Your task to perform on an android device: find photos in the google photos app Image 0: 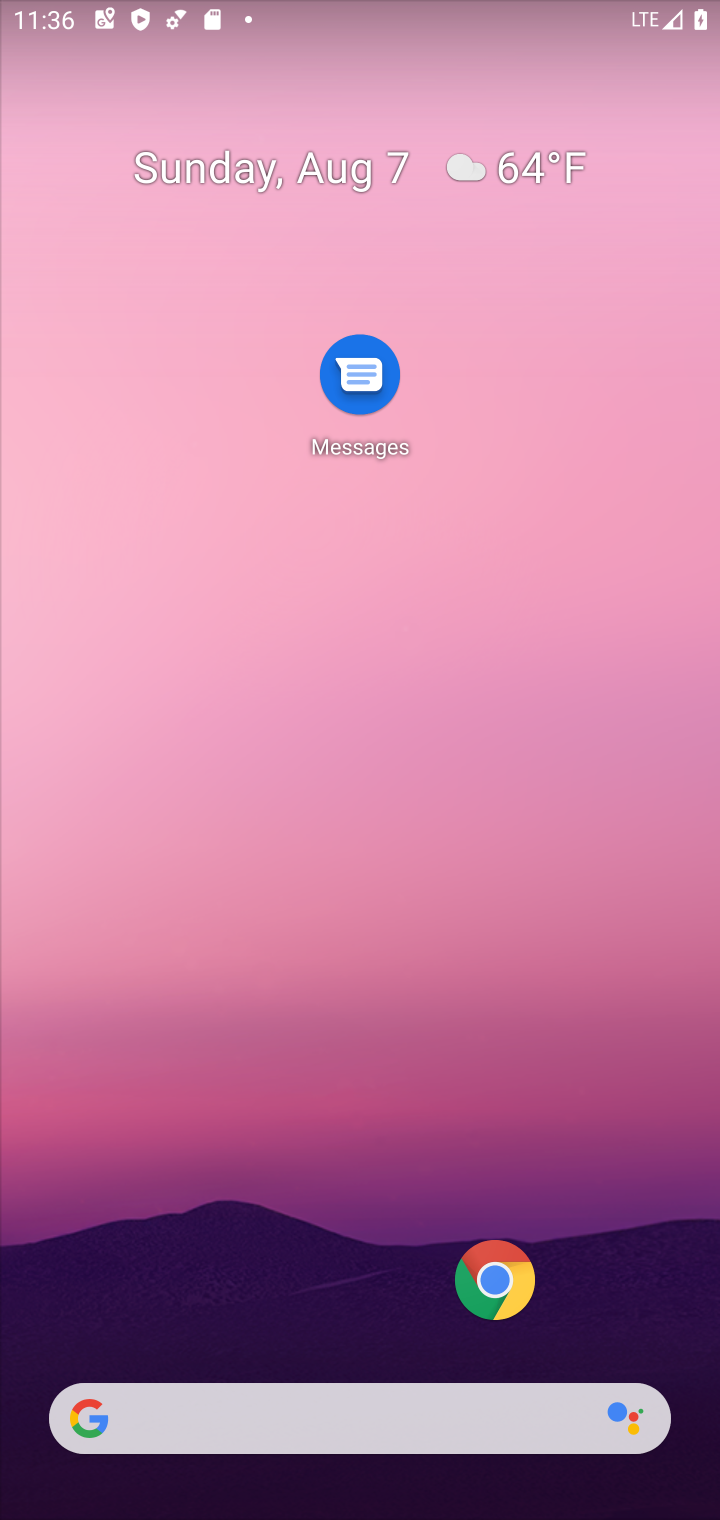
Step 0: drag from (323, 861) to (393, 266)
Your task to perform on an android device: find photos in the google photos app Image 1: 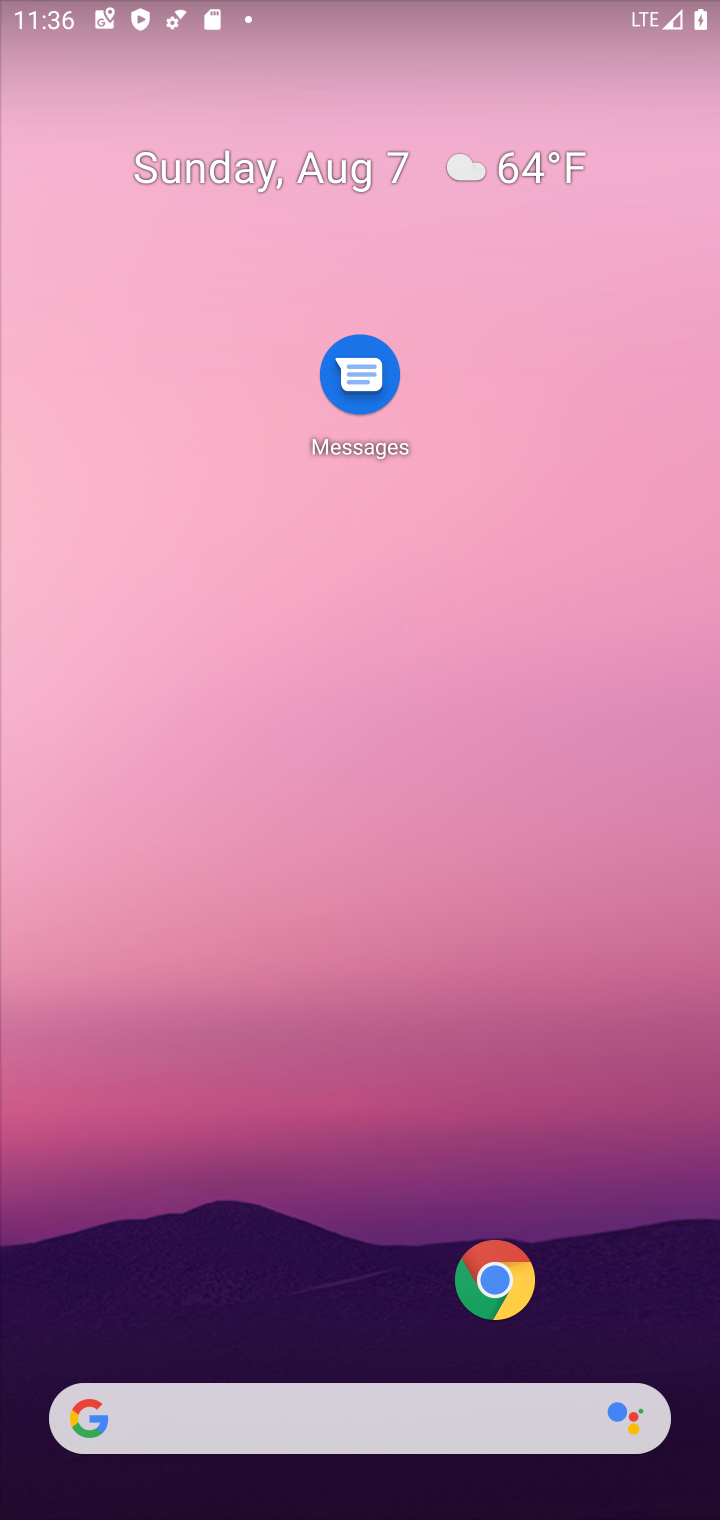
Step 1: drag from (249, 1377) to (331, 301)
Your task to perform on an android device: find photos in the google photos app Image 2: 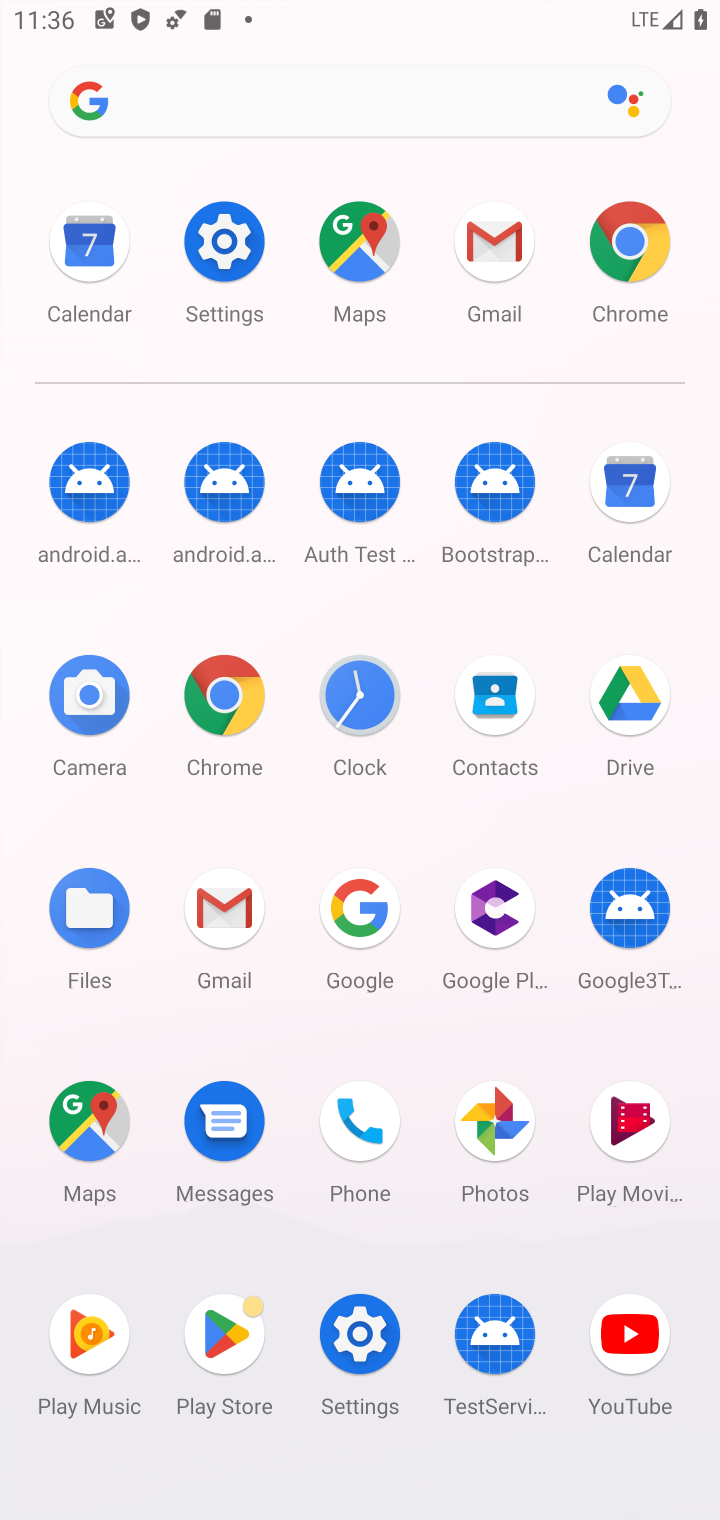
Step 2: click (484, 1136)
Your task to perform on an android device: find photos in the google photos app Image 3: 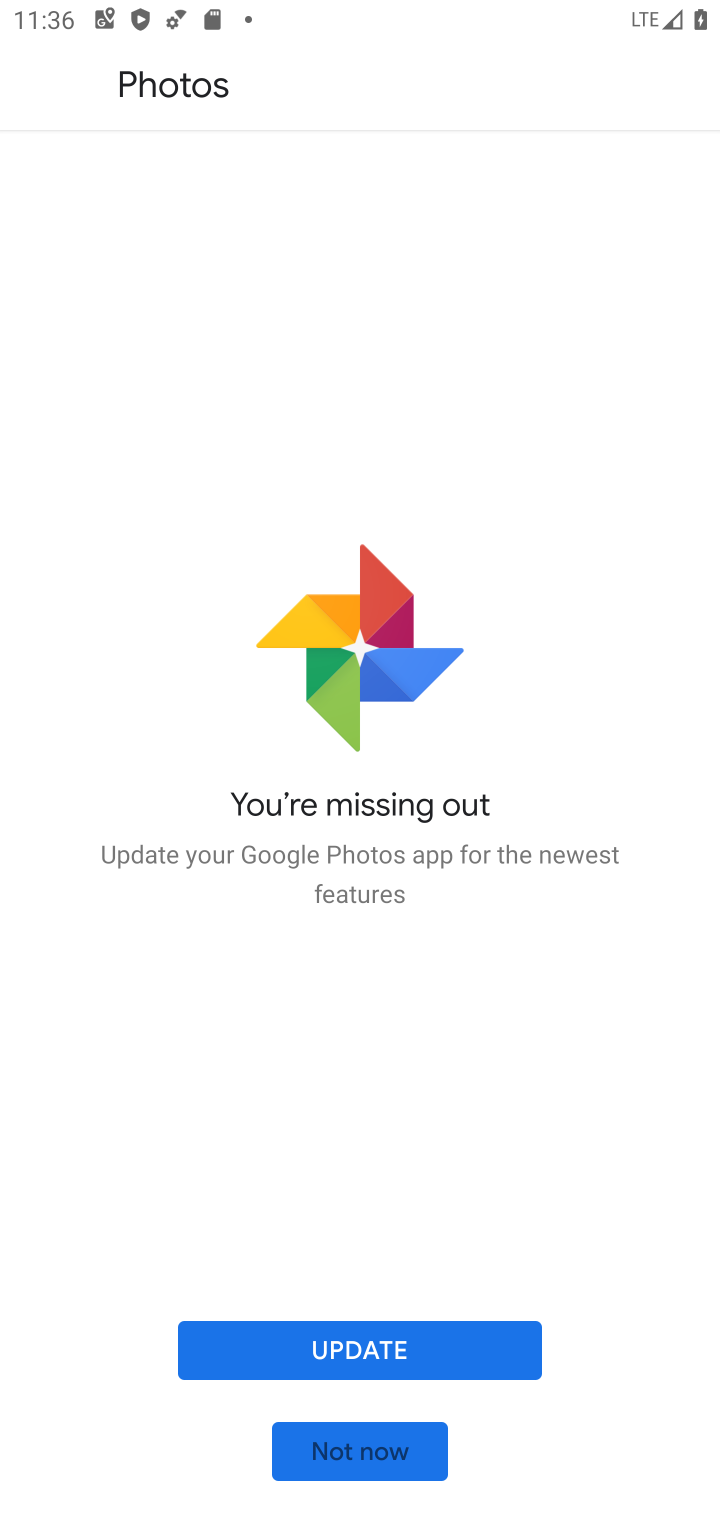
Step 3: click (347, 1461)
Your task to perform on an android device: find photos in the google photos app Image 4: 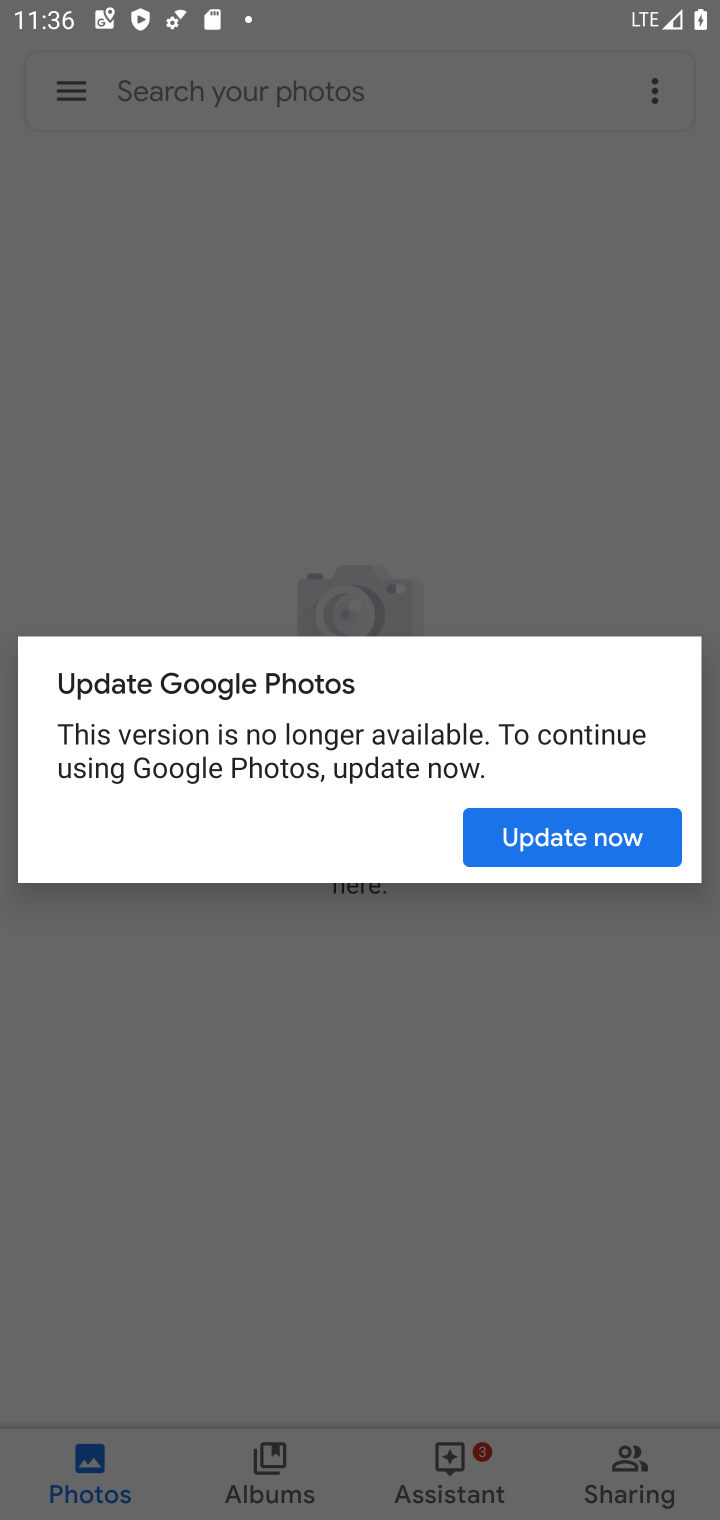
Step 4: click (567, 830)
Your task to perform on an android device: find photos in the google photos app Image 5: 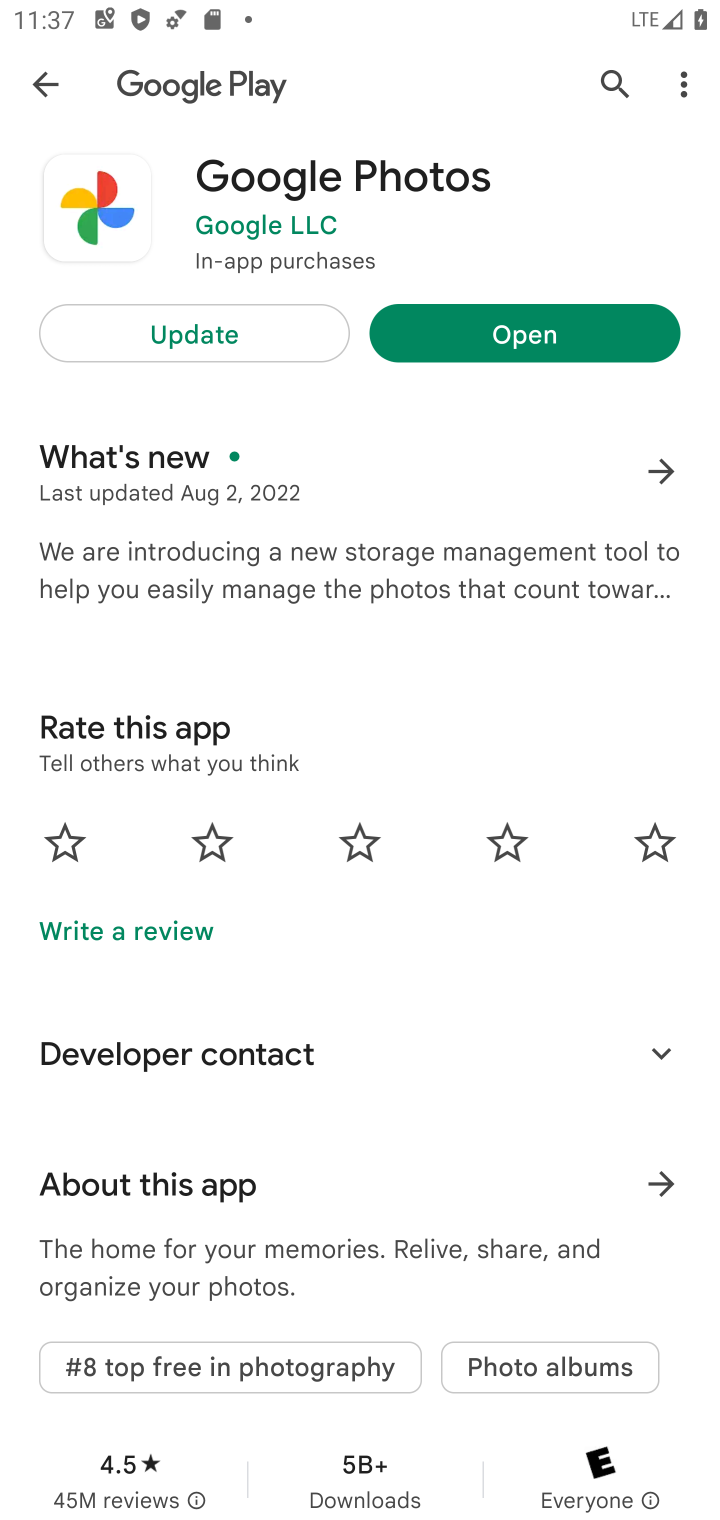
Step 5: click (476, 343)
Your task to perform on an android device: find photos in the google photos app Image 6: 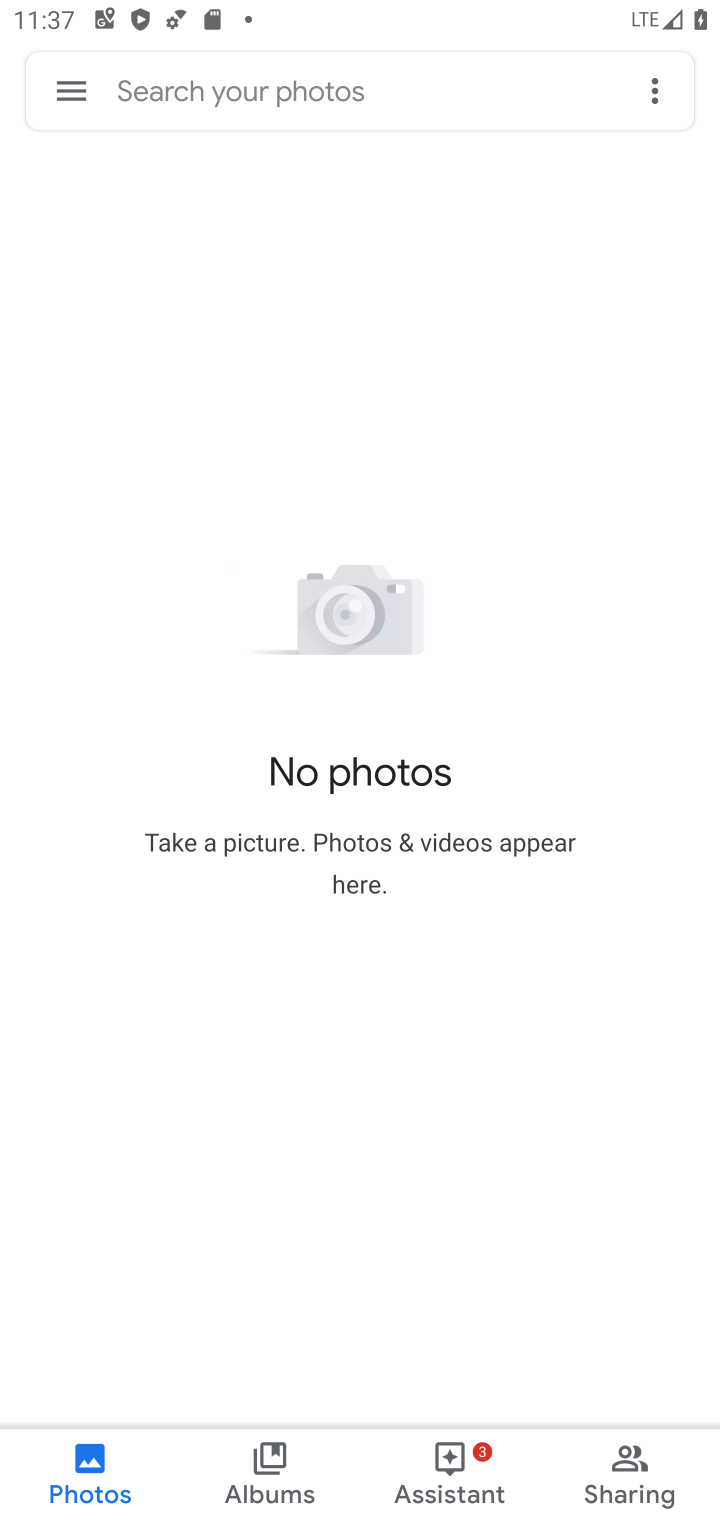
Step 6: task complete